Your task to perform on an android device: install app "Cash App" Image 0: 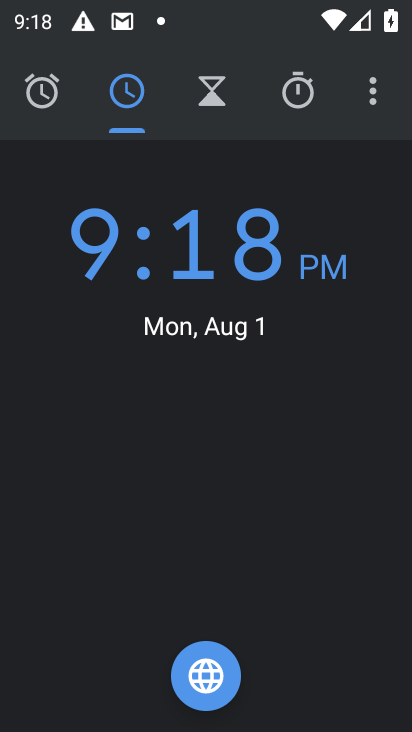
Step 0: press home button
Your task to perform on an android device: install app "Cash App" Image 1: 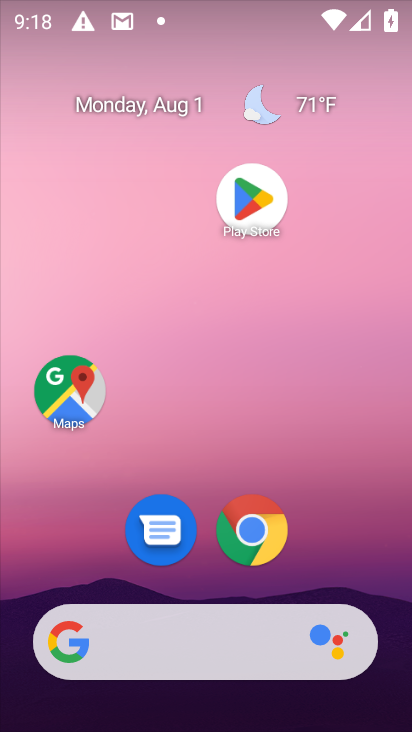
Step 1: click (271, 205)
Your task to perform on an android device: install app "Cash App" Image 2: 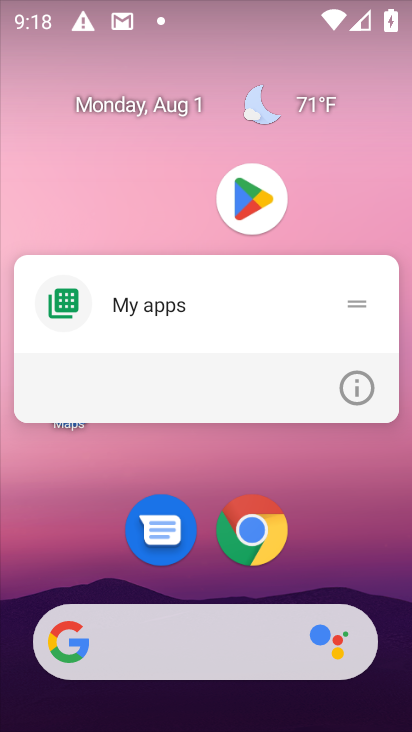
Step 2: click (251, 194)
Your task to perform on an android device: install app "Cash App" Image 3: 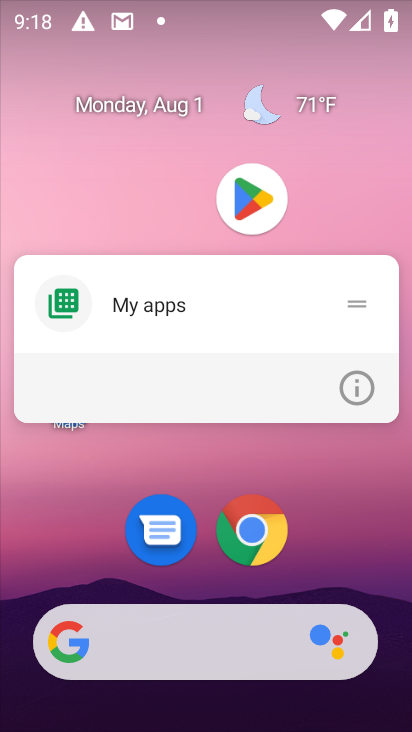
Step 3: click (224, 221)
Your task to perform on an android device: install app "Cash App" Image 4: 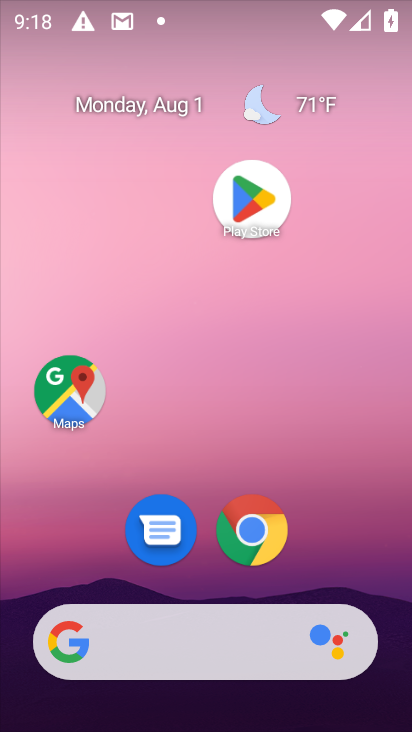
Step 4: click (223, 178)
Your task to perform on an android device: install app "Cash App" Image 5: 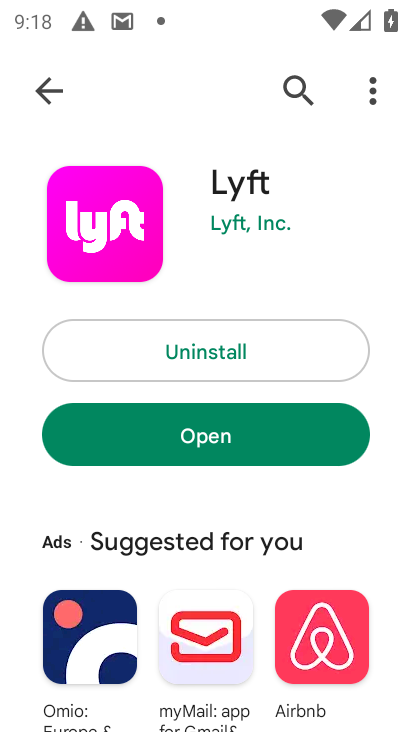
Step 5: click (290, 85)
Your task to perform on an android device: install app "Cash App" Image 6: 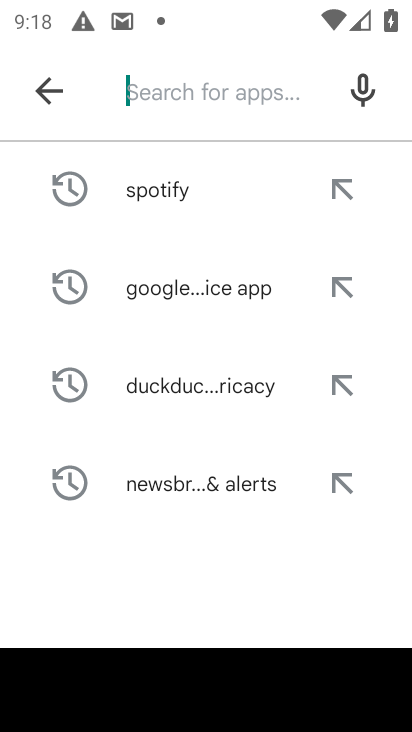
Step 6: type "cash app"
Your task to perform on an android device: install app "Cash App" Image 7: 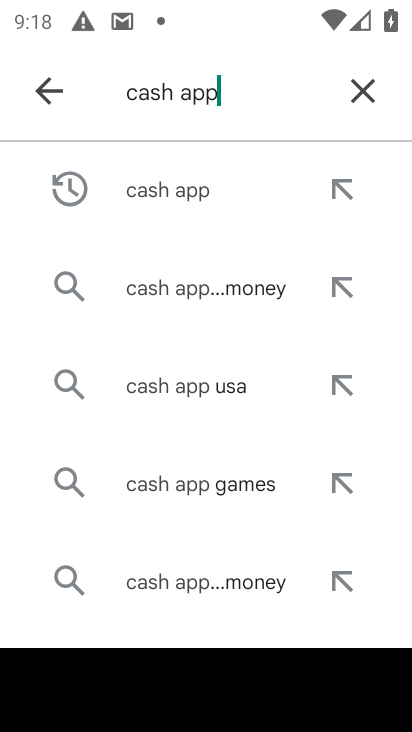
Step 7: click (169, 196)
Your task to perform on an android device: install app "Cash App" Image 8: 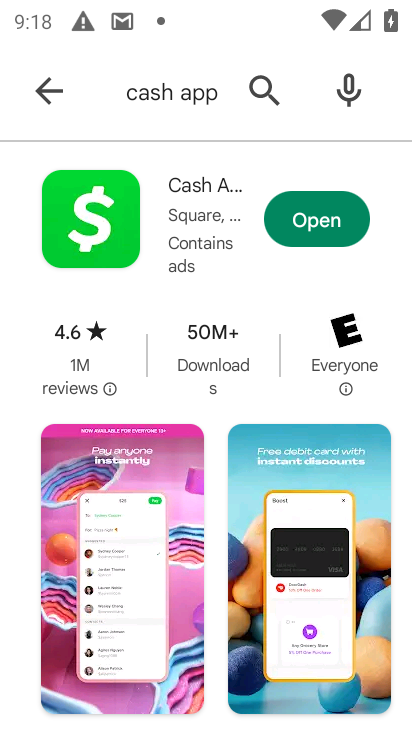
Step 8: task complete